Your task to perform on an android device: Open settings on Google Maps Image 0: 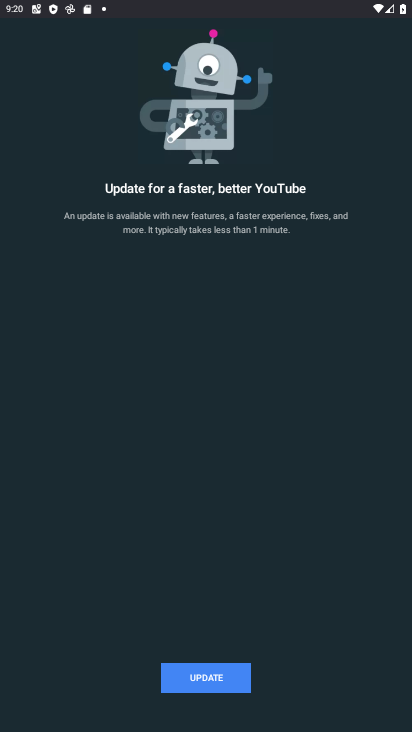
Step 0: press home button
Your task to perform on an android device: Open settings on Google Maps Image 1: 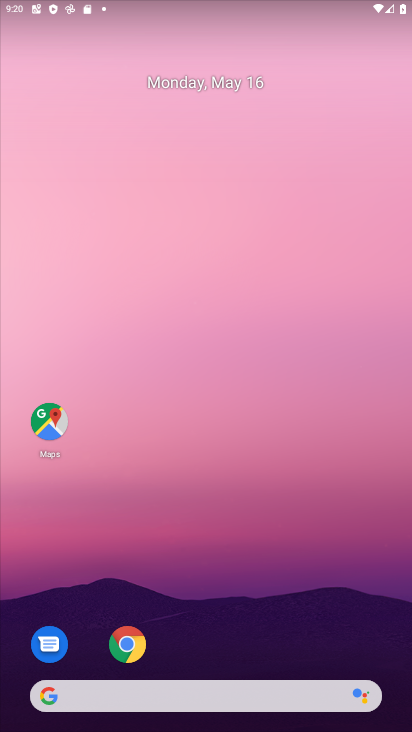
Step 1: drag from (150, 679) to (230, 29)
Your task to perform on an android device: Open settings on Google Maps Image 2: 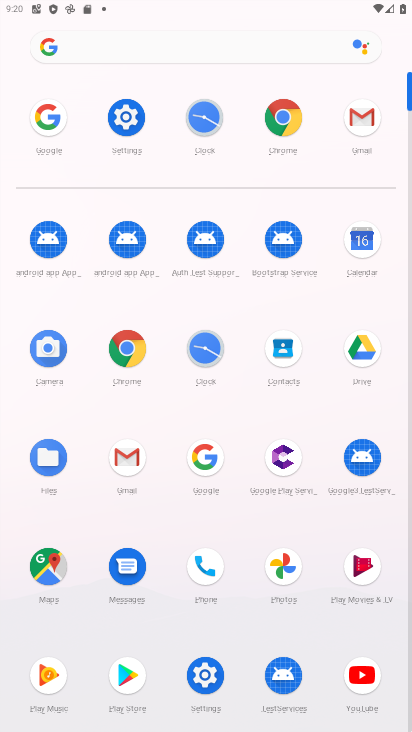
Step 2: click (57, 567)
Your task to perform on an android device: Open settings on Google Maps Image 3: 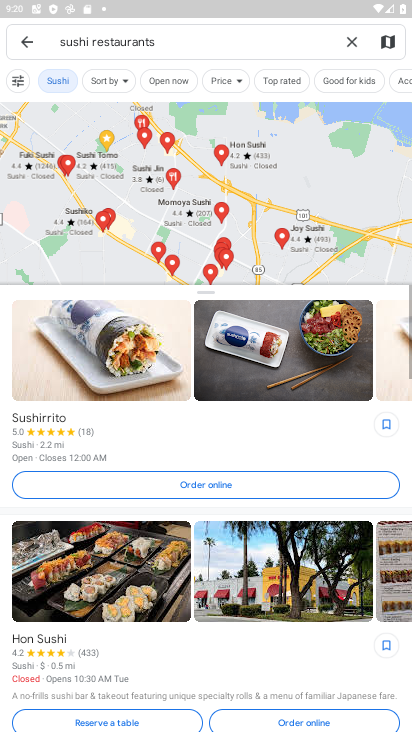
Step 3: click (355, 36)
Your task to perform on an android device: Open settings on Google Maps Image 4: 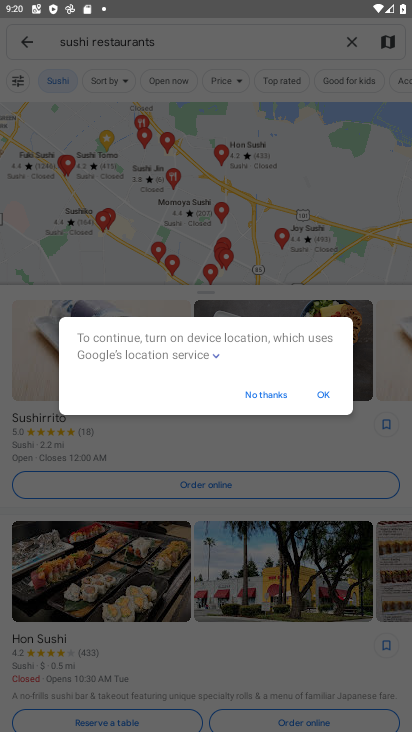
Step 4: click (265, 390)
Your task to perform on an android device: Open settings on Google Maps Image 5: 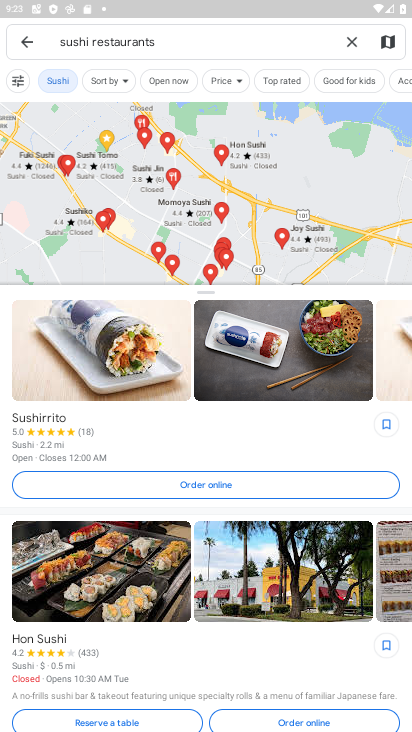
Step 5: click (352, 44)
Your task to perform on an android device: Open settings on Google Maps Image 6: 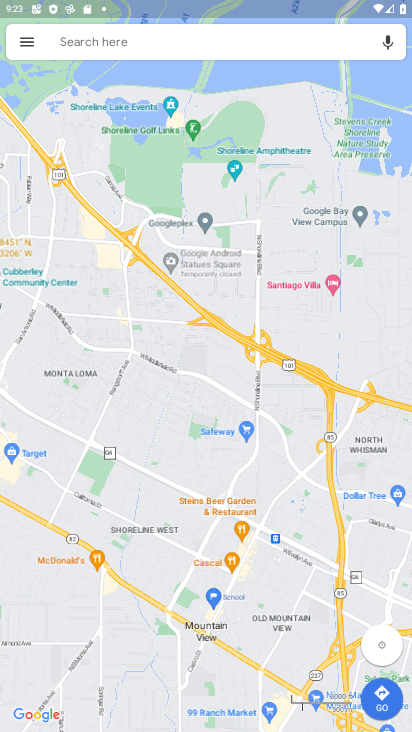
Step 6: click (39, 37)
Your task to perform on an android device: Open settings on Google Maps Image 7: 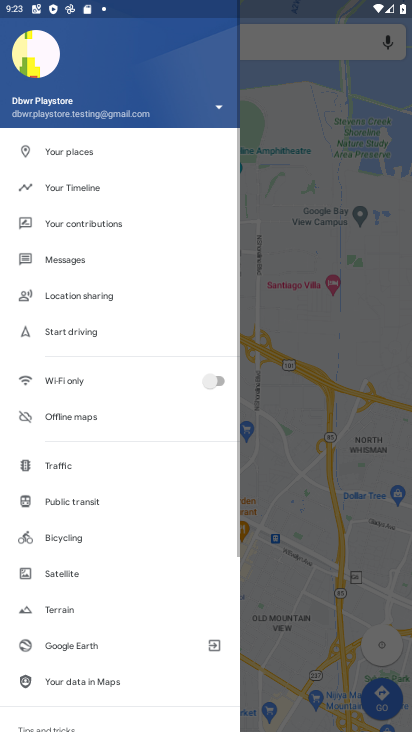
Step 7: drag from (63, 654) to (70, 54)
Your task to perform on an android device: Open settings on Google Maps Image 8: 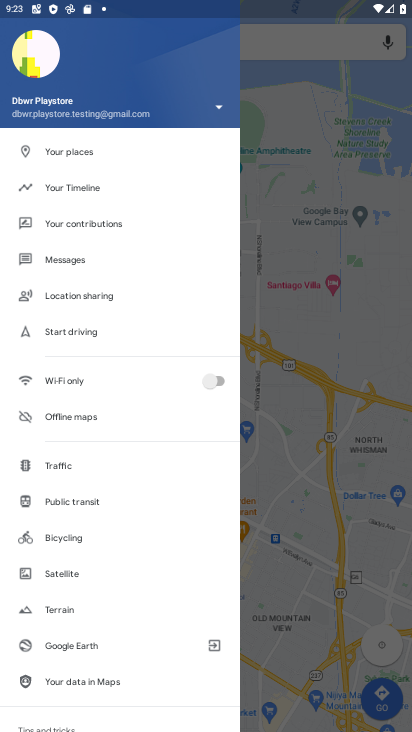
Step 8: drag from (86, 665) to (100, 103)
Your task to perform on an android device: Open settings on Google Maps Image 9: 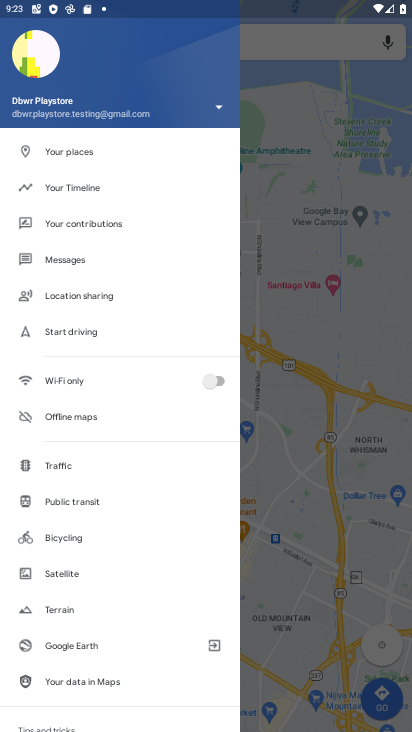
Step 9: drag from (84, 649) to (172, 43)
Your task to perform on an android device: Open settings on Google Maps Image 10: 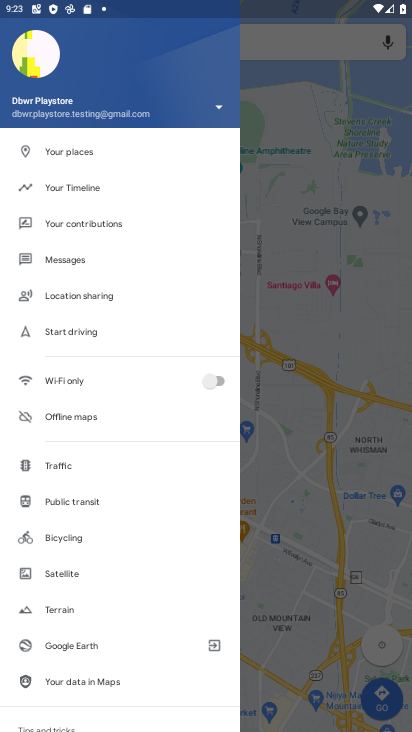
Step 10: drag from (25, 706) to (180, 63)
Your task to perform on an android device: Open settings on Google Maps Image 11: 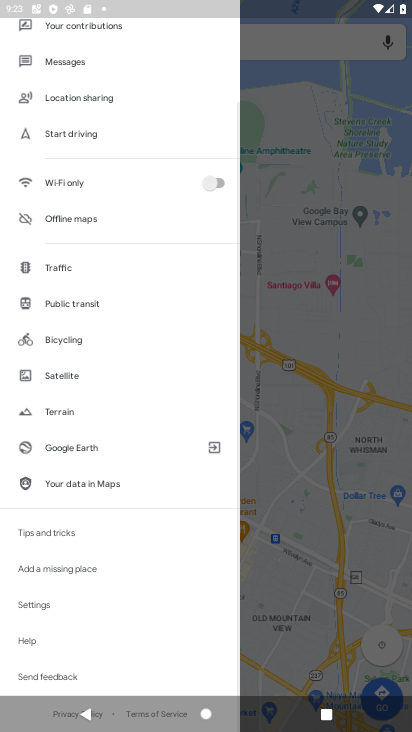
Step 11: click (42, 605)
Your task to perform on an android device: Open settings on Google Maps Image 12: 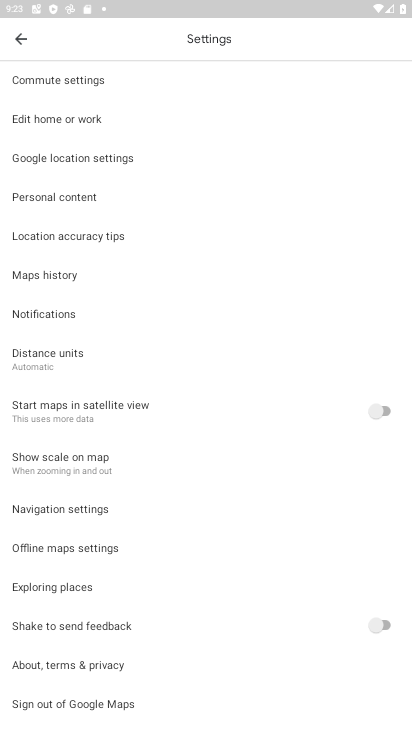
Step 12: task complete